Your task to perform on an android device: Open Yahoo.com Image 0: 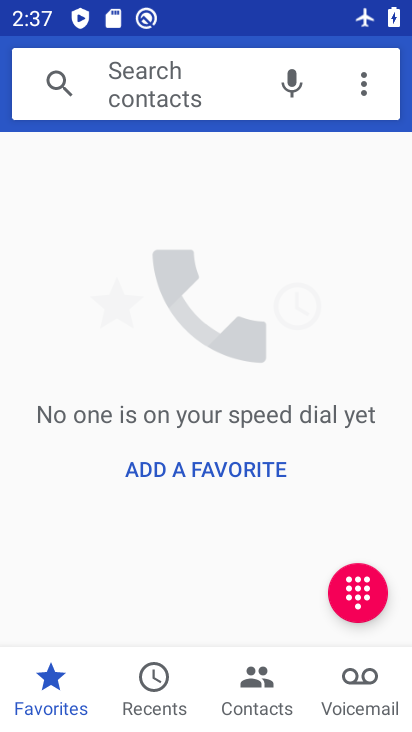
Step 0: press home button
Your task to perform on an android device: Open Yahoo.com Image 1: 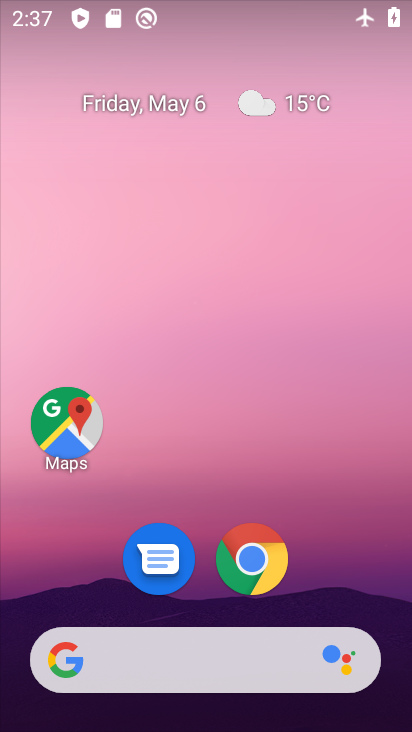
Step 1: click (279, 545)
Your task to perform on an android device: Open Yahoo.com Image 2: 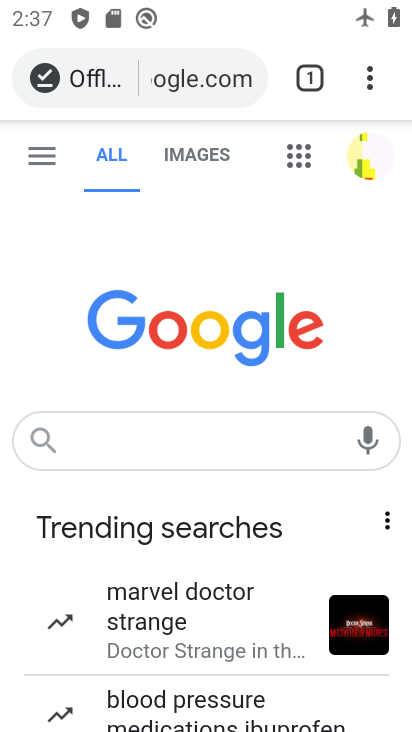
Step 2: click (210, 94)
Your task to perform on an android device: Open Yahoo.com Image 3: 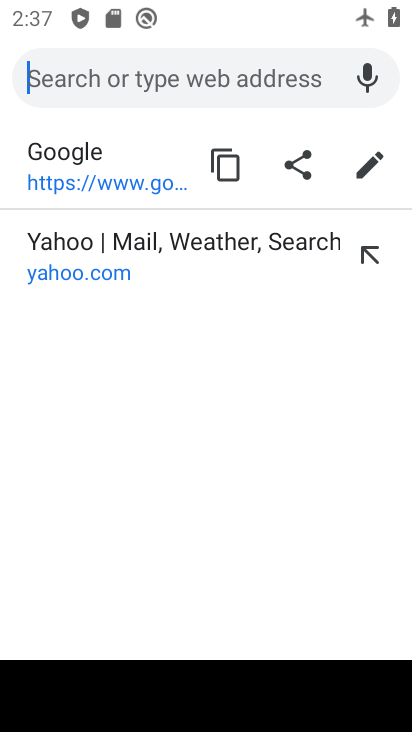
Step 3: click (149, 243)
Your task to perform on an android device: Open Yahoo.com Image 4: 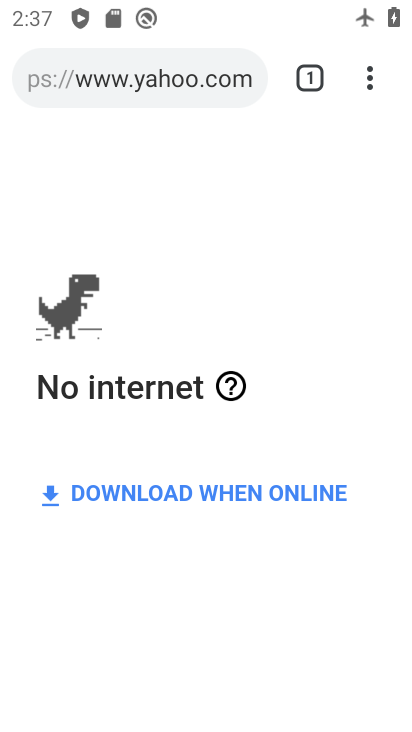
Step 4: task complete